Your task to perform on an android device: Play the last video I watched on Youtube Image 0: 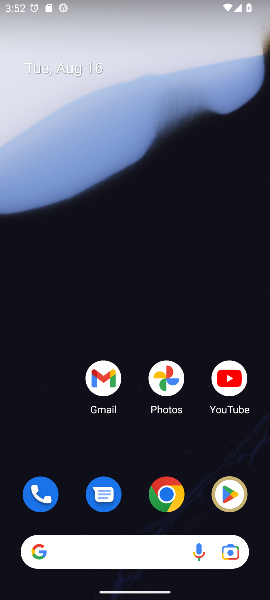
Step 0: drag from (135, 524) to (110, 7)
Your task to perform on an android device: Play the last video I watched on Youtube Image 1: 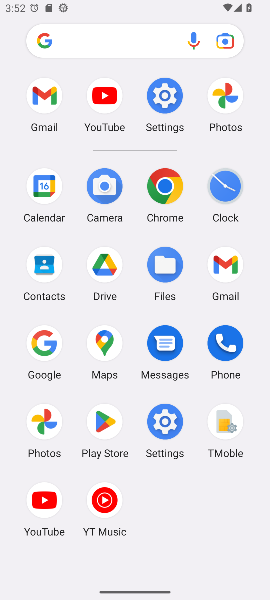
Step 1: click (57, 506)
Your task to perform on an android device: Play the last video I watched on Youtube Image 2: 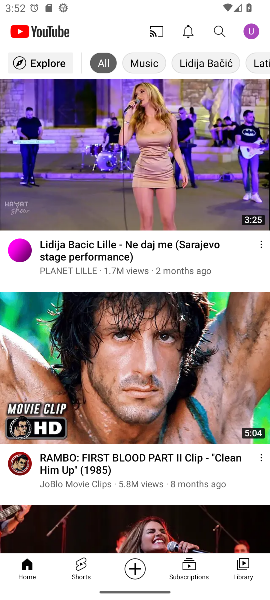
Step 2: click (246, 576)
Your task to perform on an android device: Play the last video I watched on Youtube Image 3: 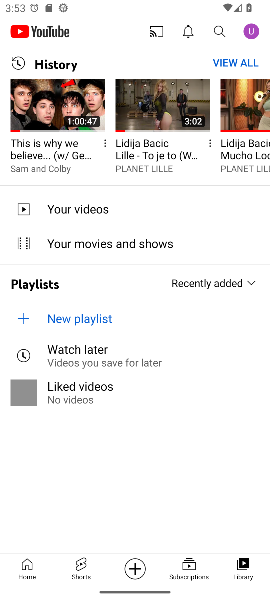
Step 3: click (46, 151)
Your task to perform on an android device: Play the last video I watched on Youtube Image 4: 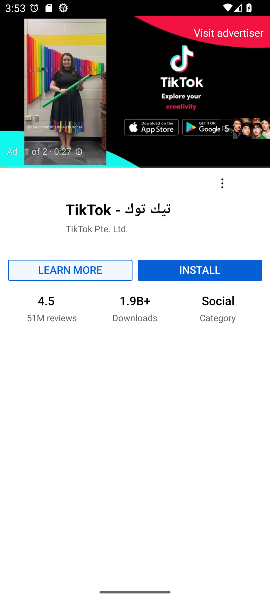
Step 4: task complete